Your task to perform on an android device: visit the assistant section in the google photos Image 0: 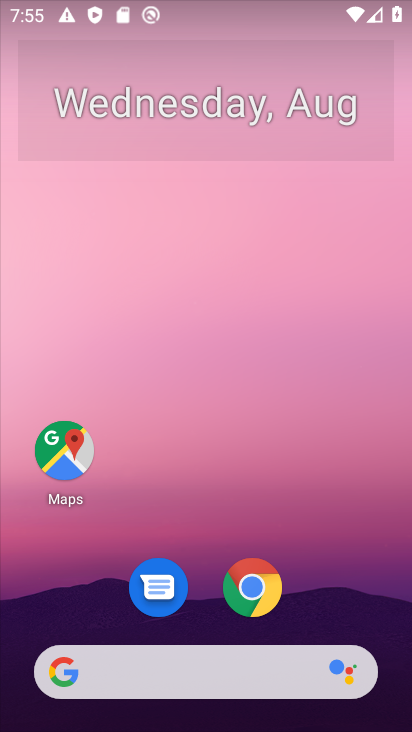
Step 0: drag from (22, 700) to (299, 103)
Your task to perform on an android device: visit the assistant section in the google photos Image 1: 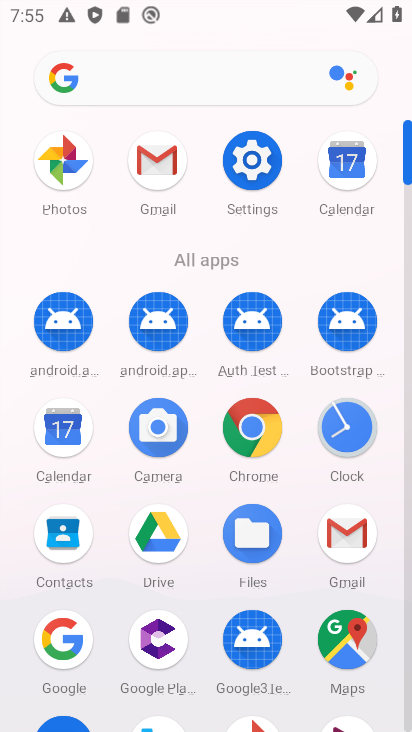
Step 1: click (58, 188)
Your task to perform on an android device: visit the assistant section in the google photos Image 2: 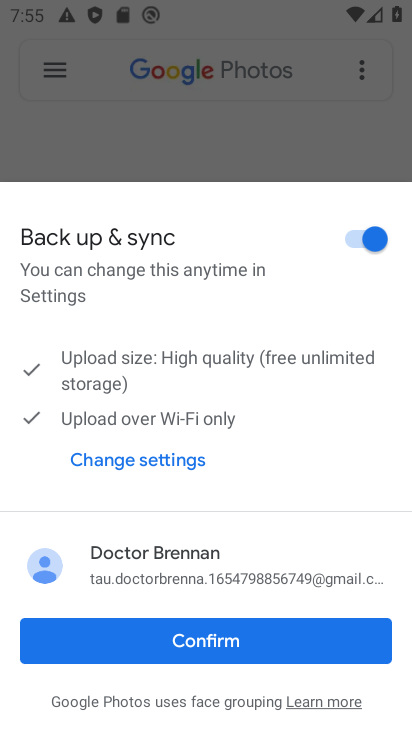
Step 2: click (157, 635)
Your task to perform on an android device: visit the assistant section in the google photos Image 3: 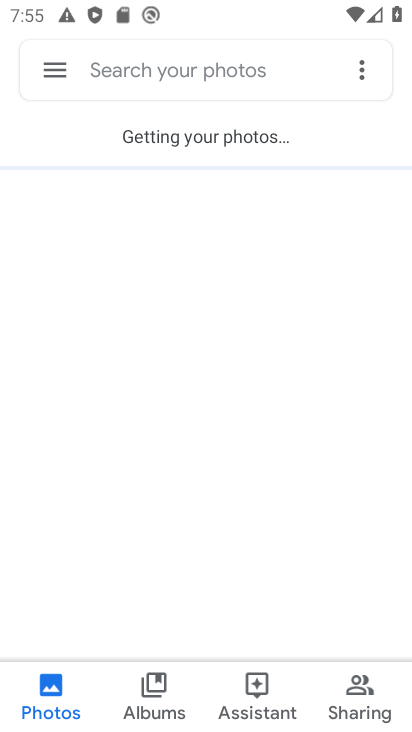
Step 3: click (269, 704)
Your task to perform on an android device: visit the assistant section in the google photos Image 4: 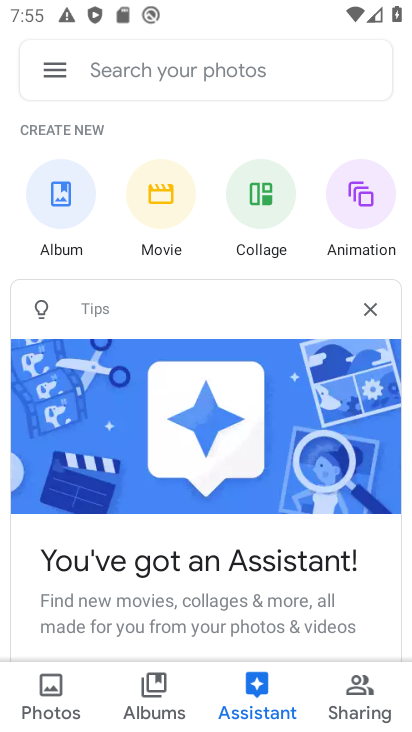
Step 4: task complete